Your task to perform on an android device: change notifications settings Image 0: 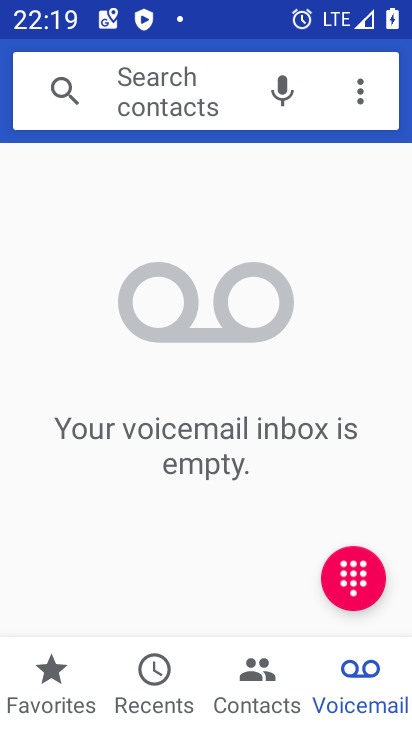
Step 0: drag from (232, 22) to (217, 545)
Your task to perform on an android device: change notifications settings Image 1: 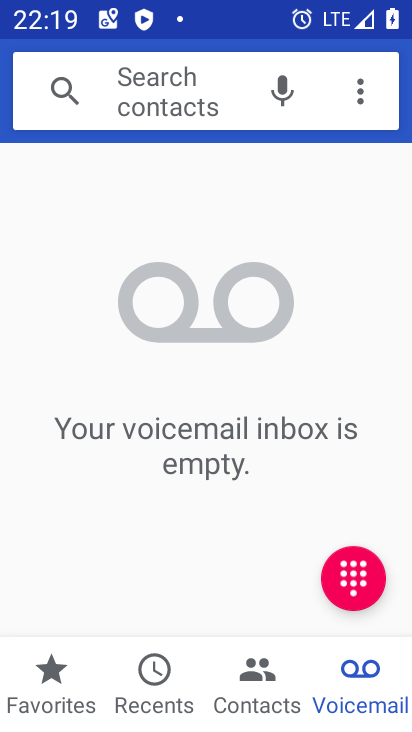
Step 1: drag from (214, 23) to (163, 673)
Your task to perform on an android device: change notifications settings Image 2: 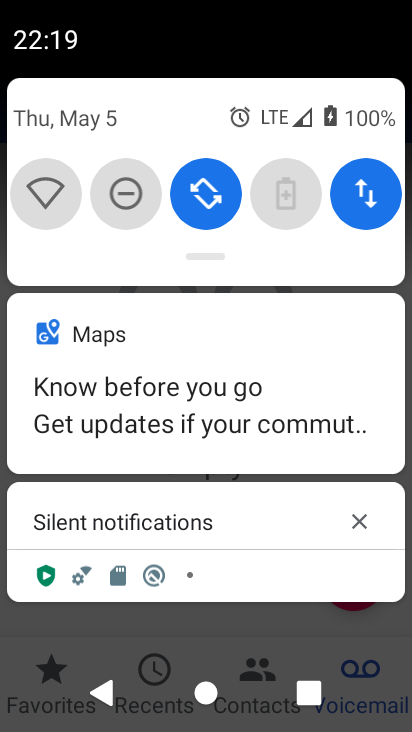
Step 2: drag from (213, 111) to (248, 629)
Your task to perform on an android device: change notifications settings Image 3: 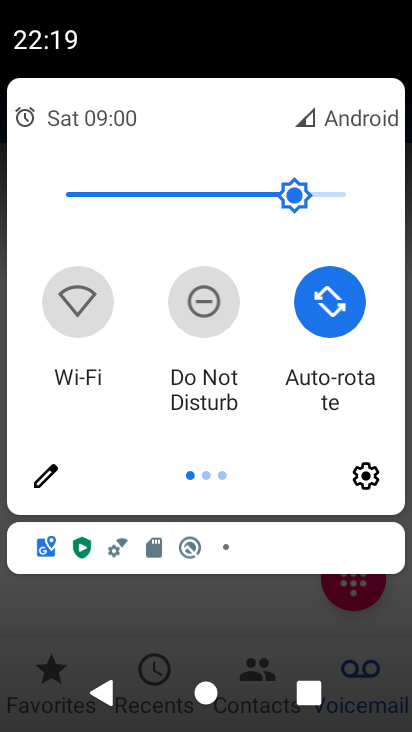
Step 3: click (375, 469)
Your task to perform on an android device: change notifications settings Image 4: 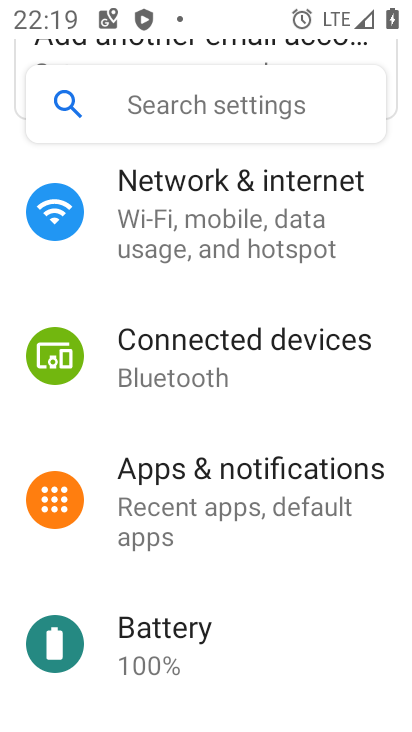
Step 4: click (263, 513)
Your task to perform on an android device: change notifications settings Image 5: 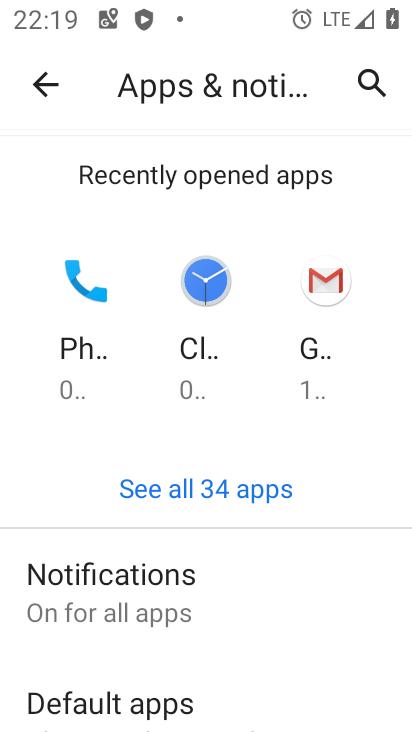
Step 5: click (188, 621)
Your task to perform on an android device: change notifications settings Image 6: 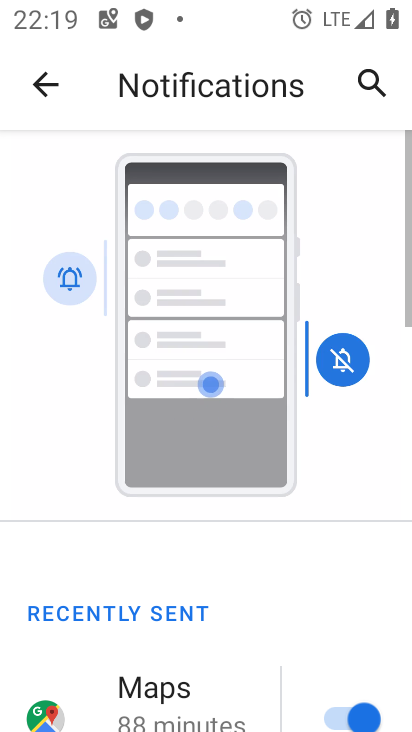
Step 6: drag from (188, 621) to (238, 106)
Your task to perform on an android device: change notifications settings Image 7: 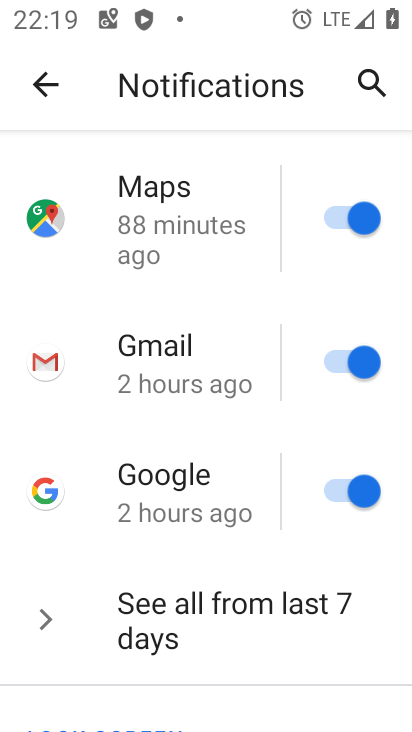
Step 7: drag from (121, 586) to (161, 85)
Your task to perform on an android device: change notifications settings Image 8: 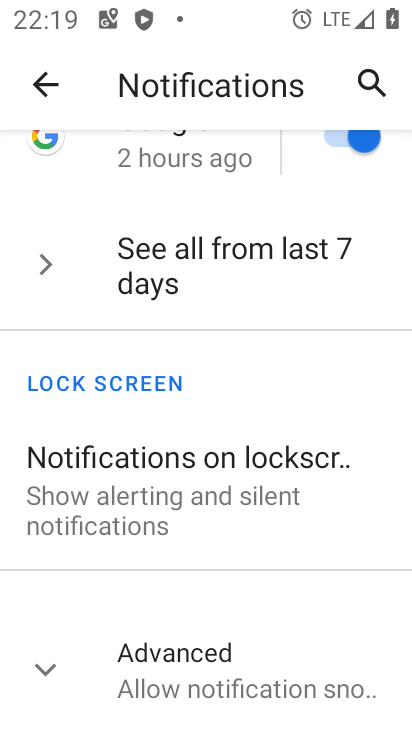
Step 8: click (162, 675)
Your task to perform on an android device: change notifications settings Image 9: 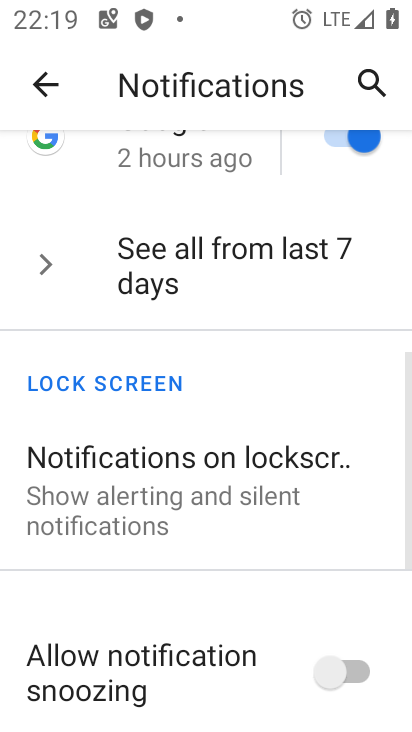
Step 9: drag from (162, 675) to (187, 174)
Your task to perform on an android device: change notifications settings Image 10: 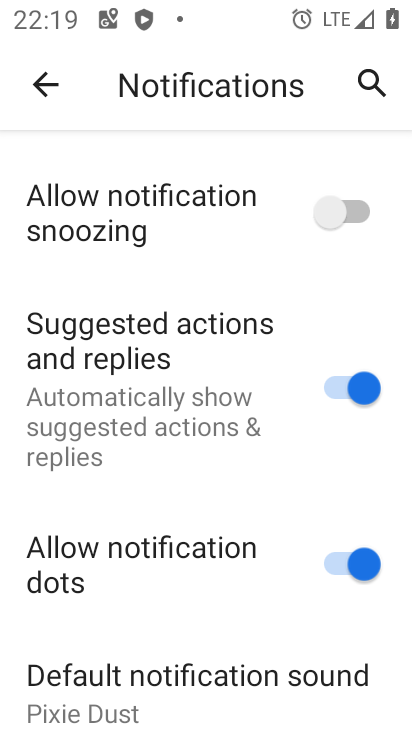
Step 10: click (366, 557)
Your task to perform on an android device: change notifications settings Image 11: 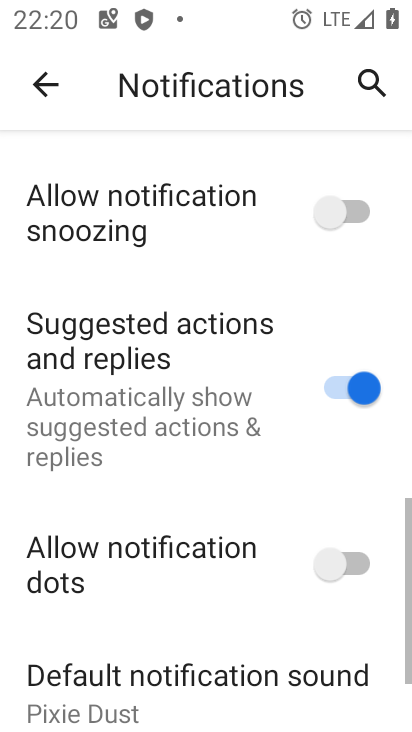
Step 11: click (370, 369)
Your task to perform on an android device: change notifications settings Image 12: 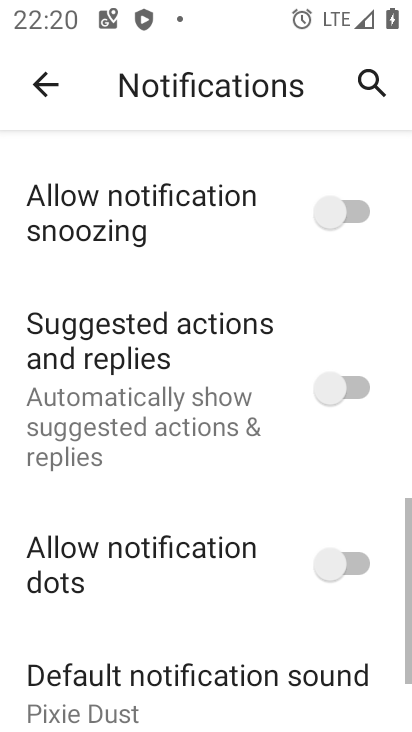
Step 12: click (355, 214)
Your task to perform on an android device: change notifications settings Image 13: 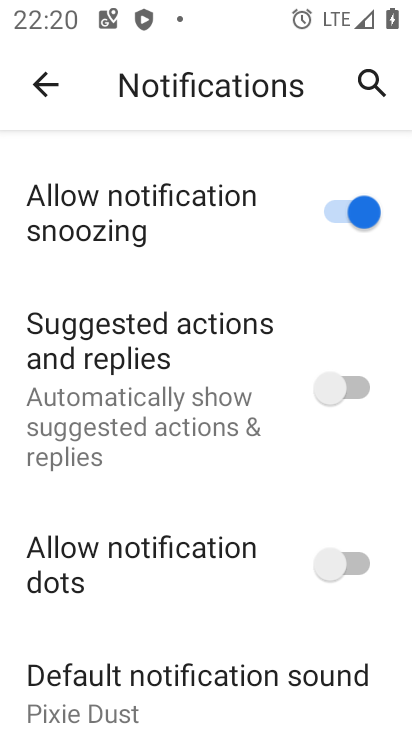
Step 13: task complete